Your task to perform on an android device: turn off improve location accuracy Image 0: 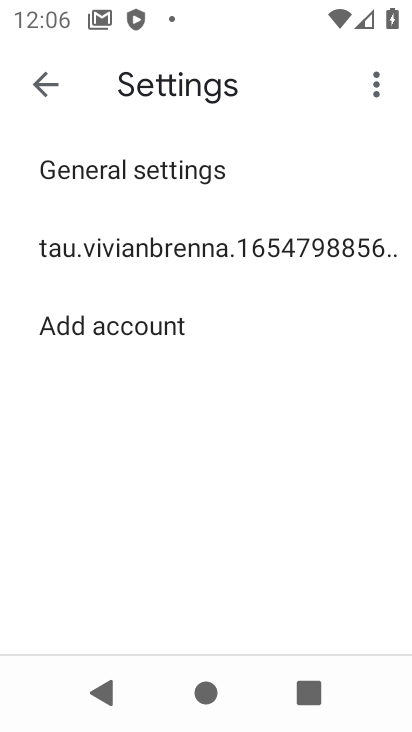
Step 0: press home button
Your task to perform on an android device: turn off improve location accuracy Image 1: 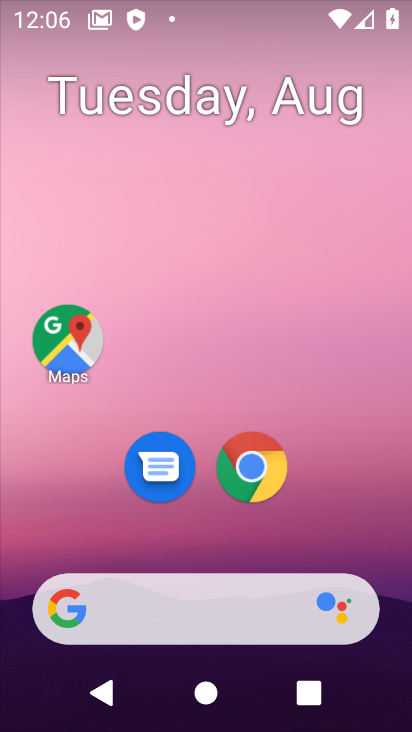
Step 1: drag from (375, 504) to (398, 82)
Your task to perform on an android device: turn off improve location accuracy Image 2: 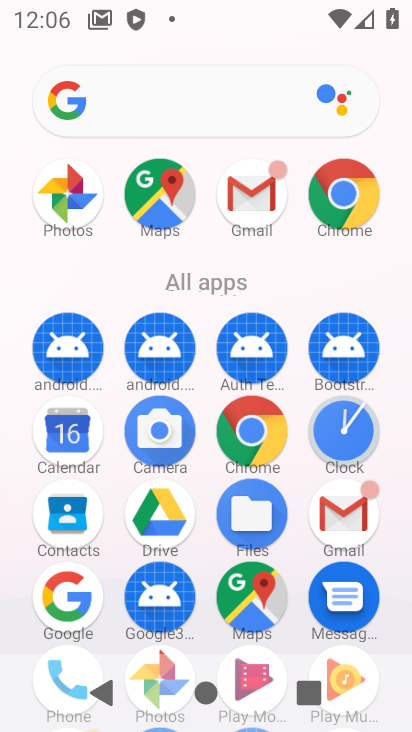
Step 2: drag from (388, 548) to (400, 308)
Your task to perform on an android device: turn off improve location accuracy Image 3: 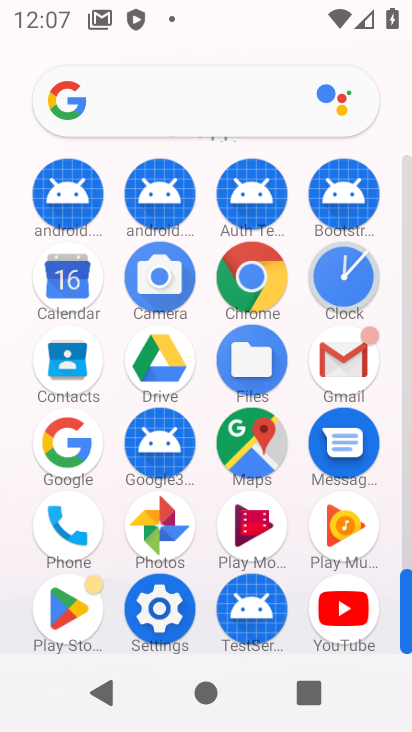
Step 3: click (166, 606)
Your task to perform on an android device: turn off improve location accuracy Image 4: 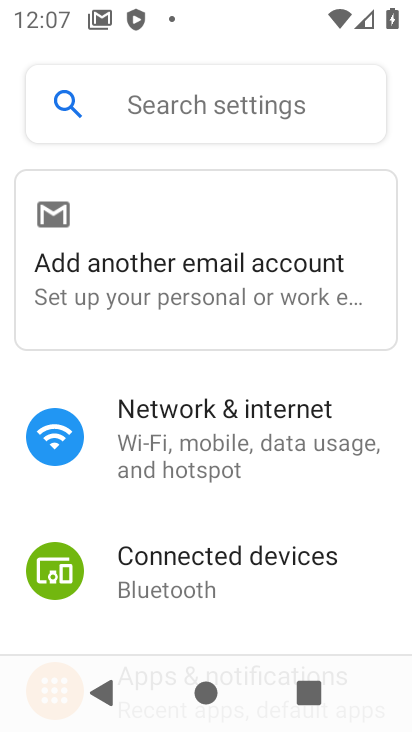
Step 4: drag from (380, 532) to (381, 416)
Your task to perform on an android device: turn off improve location accuracy Image 5: 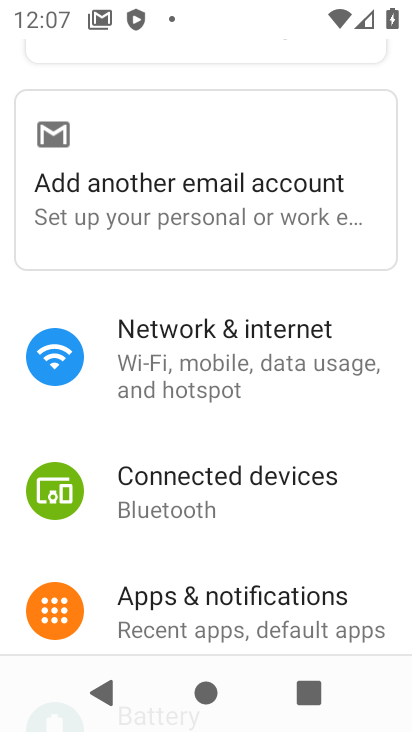
Step 5: drag from (372, 539) to (373, 387)
Your task to perform on an android device: turn off improve location accuracy Image 6: 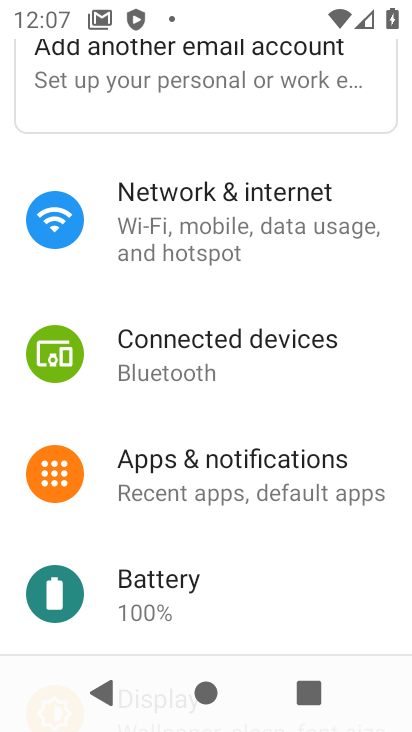
Step 6: drag from (381, 575) to (378, 425)
Your task to perform on an android device: turn off improve location accuracy Image 7: 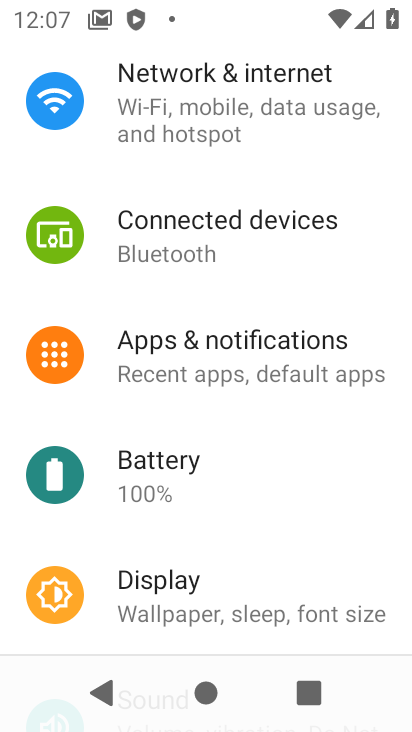
Step 7: drag from (360, 500) to (375, 370)
Your task to perform on an android device: turn off improve location accuracy Image 8: 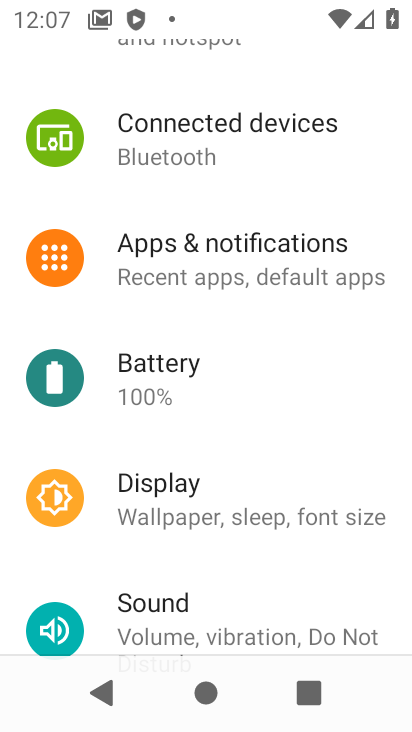
Step 8: drag from (359, 553) to (370, 380)
Your task to perform on an android device: turn off improve location accuracy Image 9: 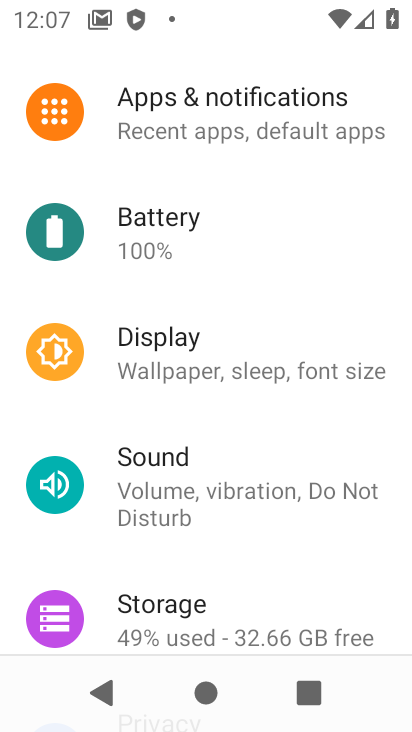
Step 9: drag from (341, 574) to (349, 402)
Your task to perform on an android device: turn off improve location accuracy Image 10: 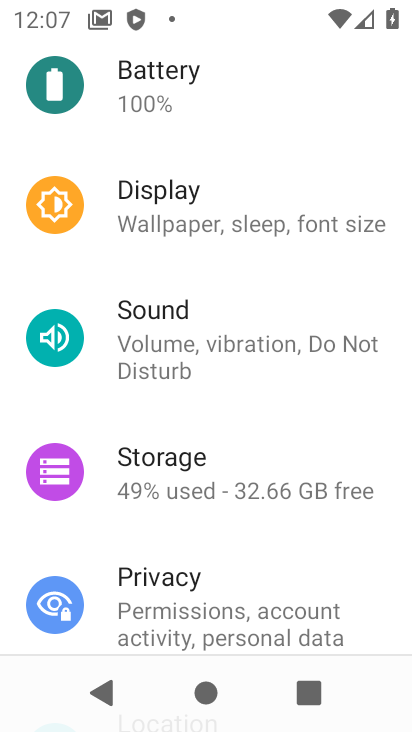
Step 10: drag from (362, 581) to (360, 423)
Your task to perform on an android device: turn off improve location accuracy Image 11: 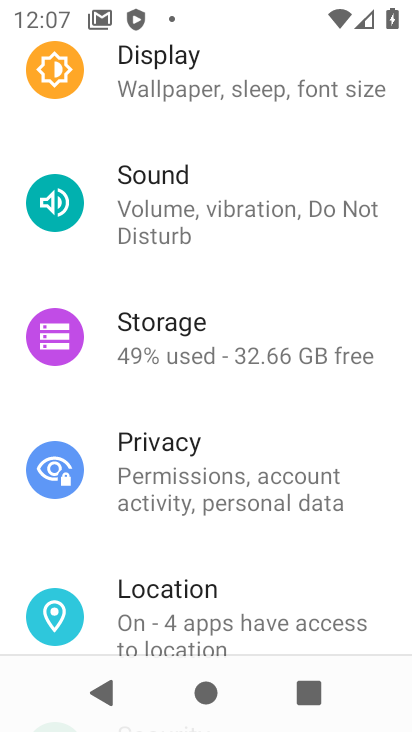
Step 11: drag from (338, 551) to (359, 365)
Your task to perform on an android device: turn off improve location accuracy Image 12: 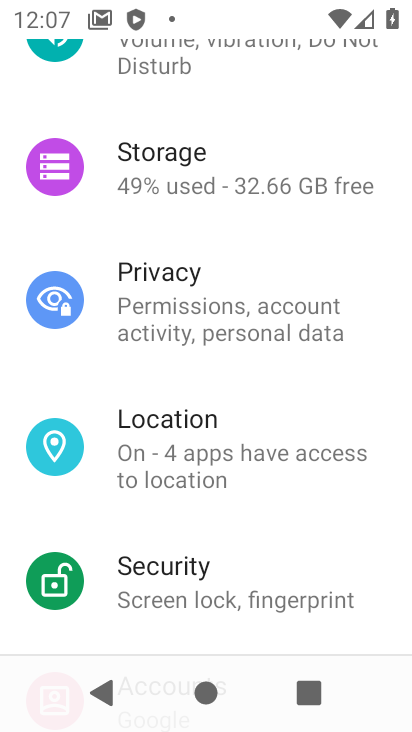
Step 12: click (329, 459)
Your task to perform on an android device: turn off improve location accuracy Image 13: 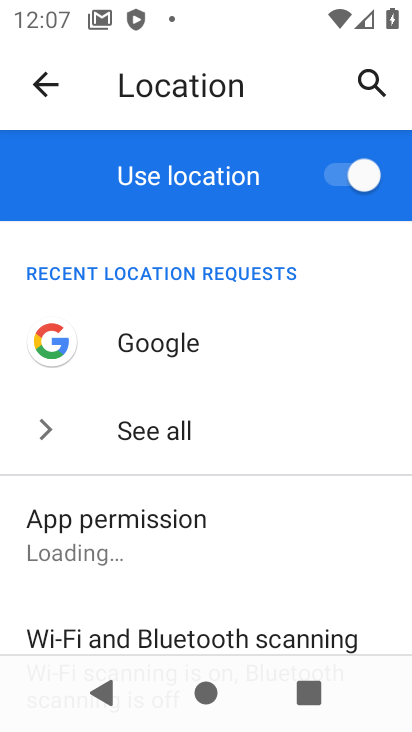
Step 13: drag from (311, 568) to (321, 387)
Your task to perform on an android device: turn off improve location accuracy Image 14: 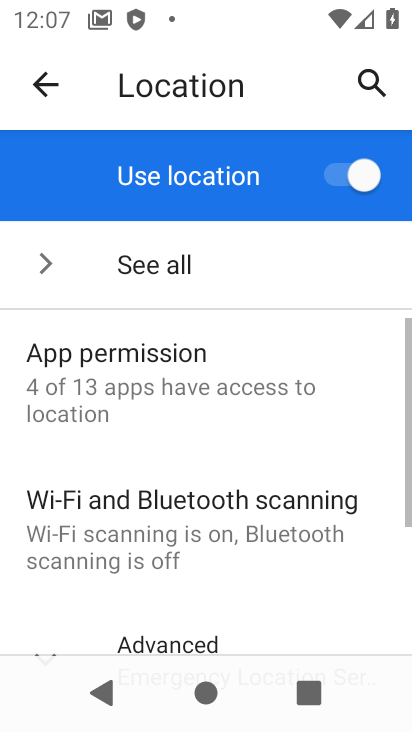
Step 14: drag from (316, 597) to (350, 338)
Your task to perform on an android device: turn off improve location accuracy Image 15: 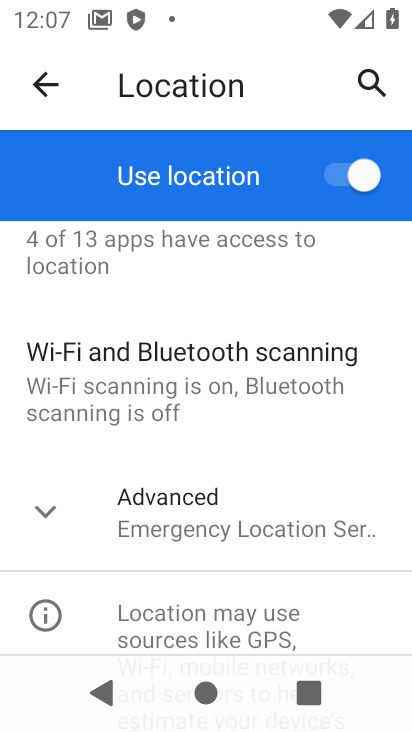
Step 15: click (309, 525)
Your task to perform on an android device: turn off improve location accuracy Image 16: 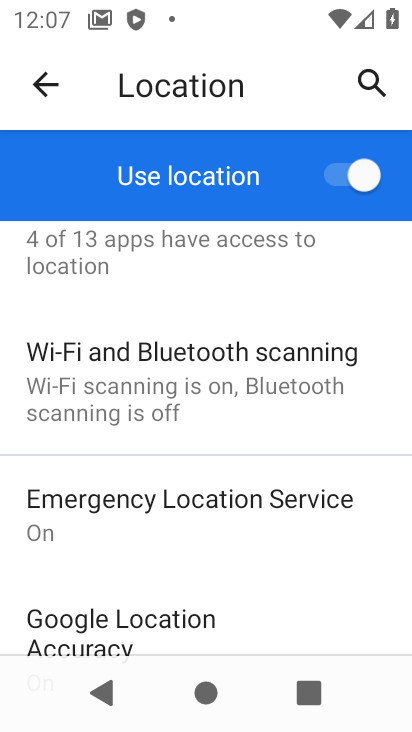
Step 16: drag from (299, 567) to (312, 421)
Your task to perform on an android device: turn off improve location accuracy Image 17: 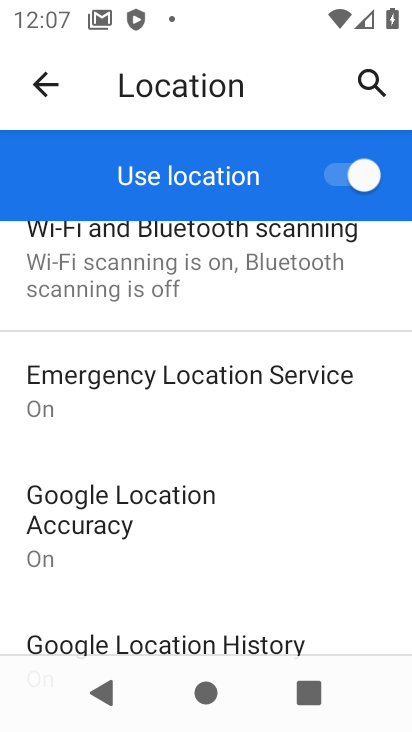
Step 17: drag from (285, 576) to (308, 391)
Your task to perform on an android device: turn off improve location accuracy Image 18: 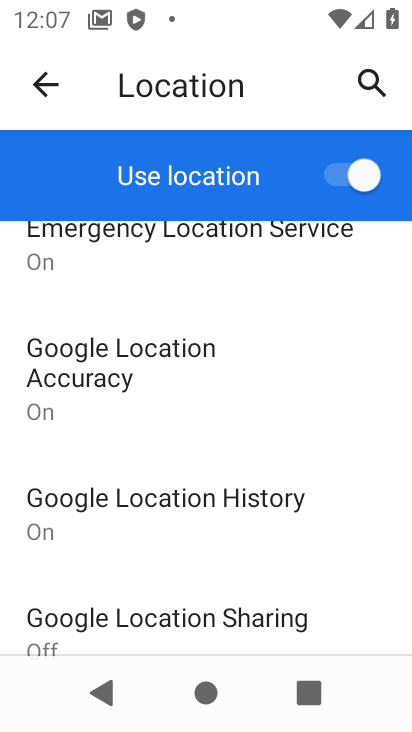
Step 18: click (143, 370)
Your task to perform on an android device: turn off improve location accuracy Image 19: 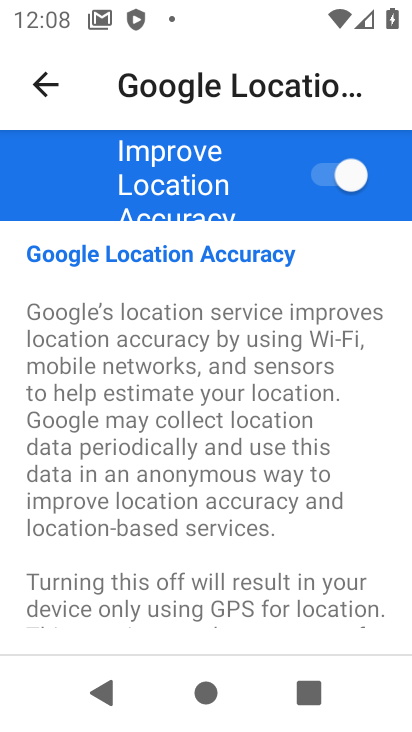
Step 19: click (348, 177)
Your task to perform on an android device: turn off improve location accuracy Image 20: 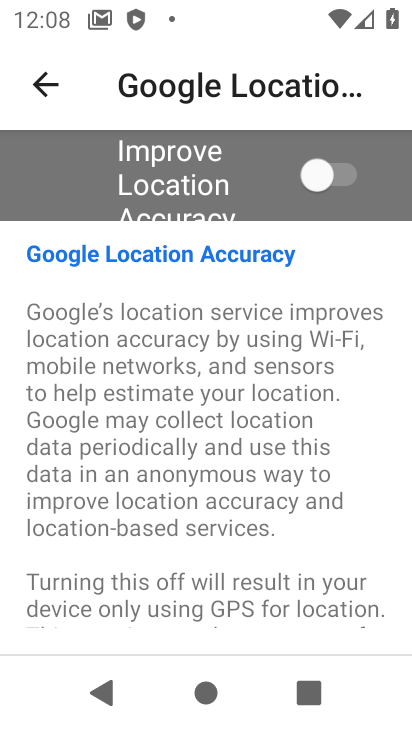
Step 20: task complete